Your task to perform on an android device: Open the web browser Image 0: 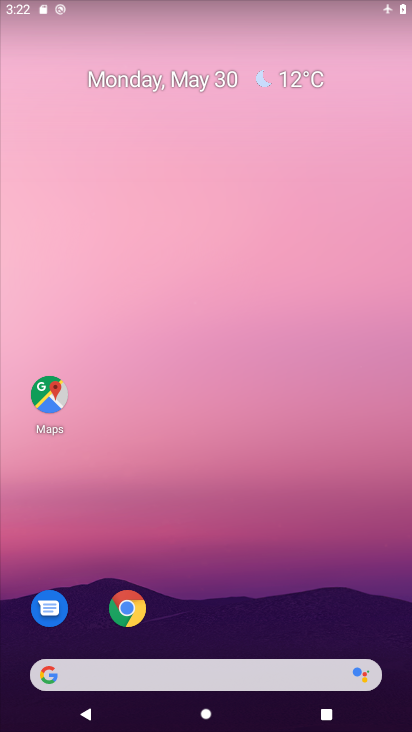
Step 0: click (129, 604)
Your task to perform on an android device: Open the web browser Image 1: 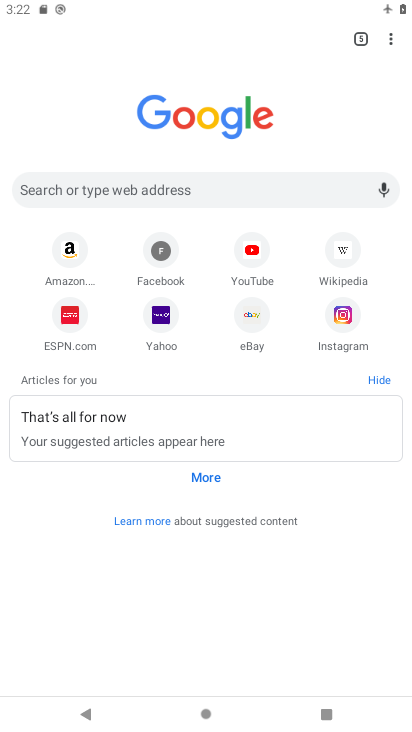
Step 1: click (384, 43)
Your task to perform on an android device: Open the web browser Image 2: 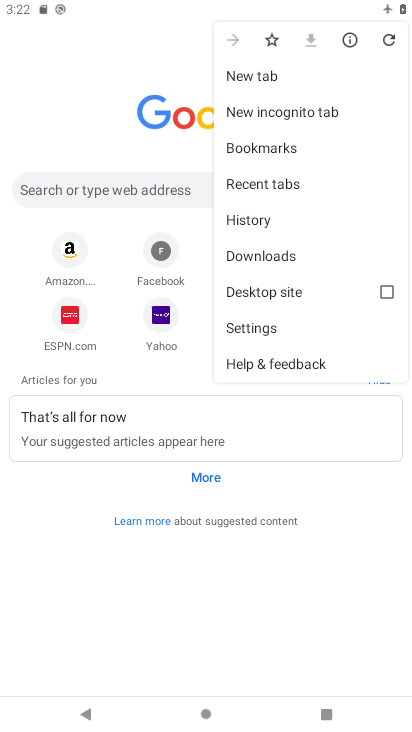
Step 2: task complete